Your task to perform on an android device: clear history in the chrome app Image 0: 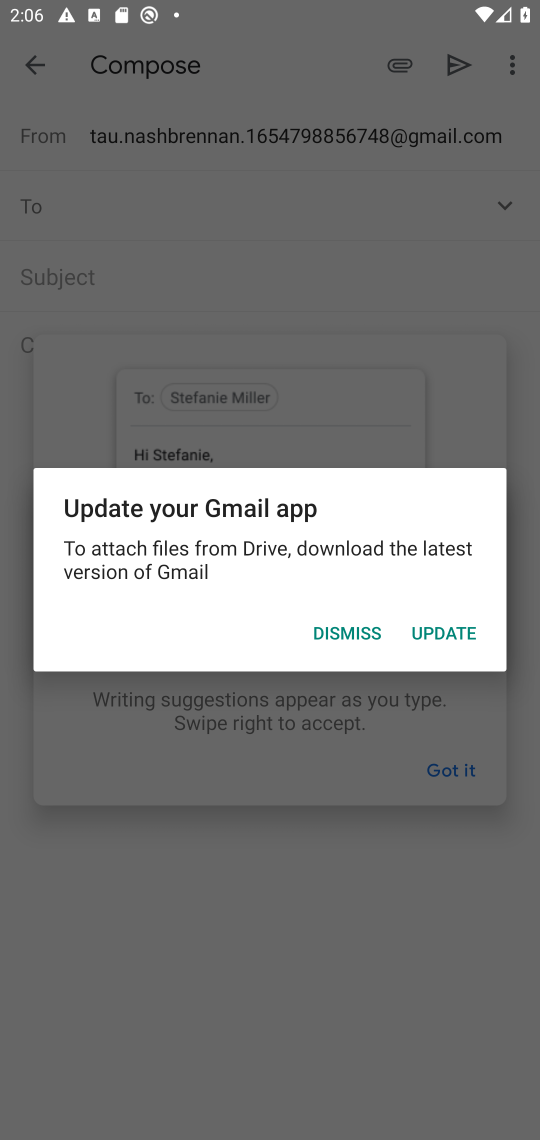
Step 0: press home button
Your task to perform on an android device: clear history in the chrome app Image 1: 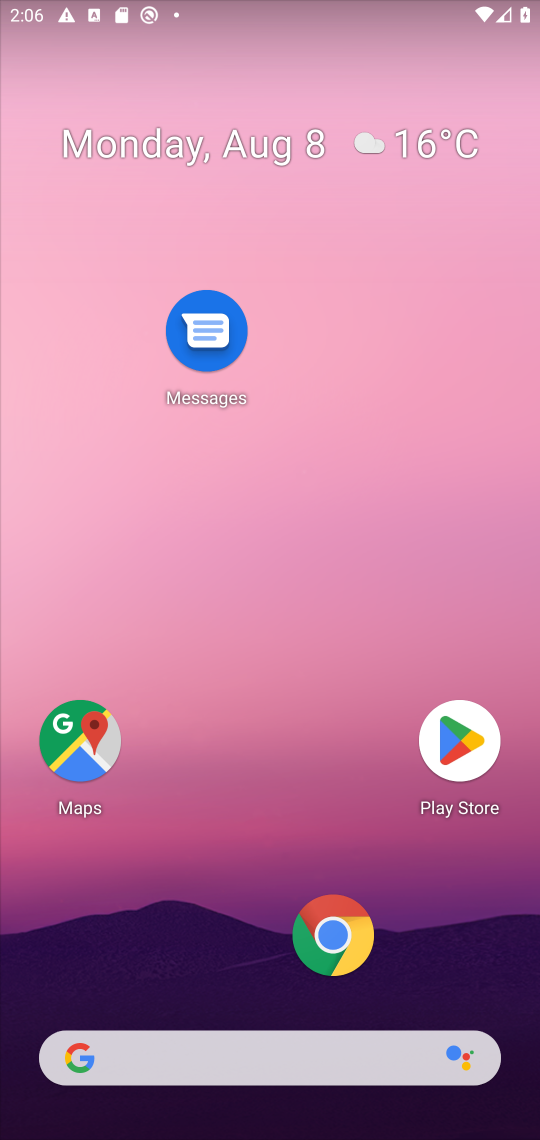
Step 1: drag from (273, 1064) to (312, 223)
Your task to perform on an android device: clear history in the chrome app Image 2: 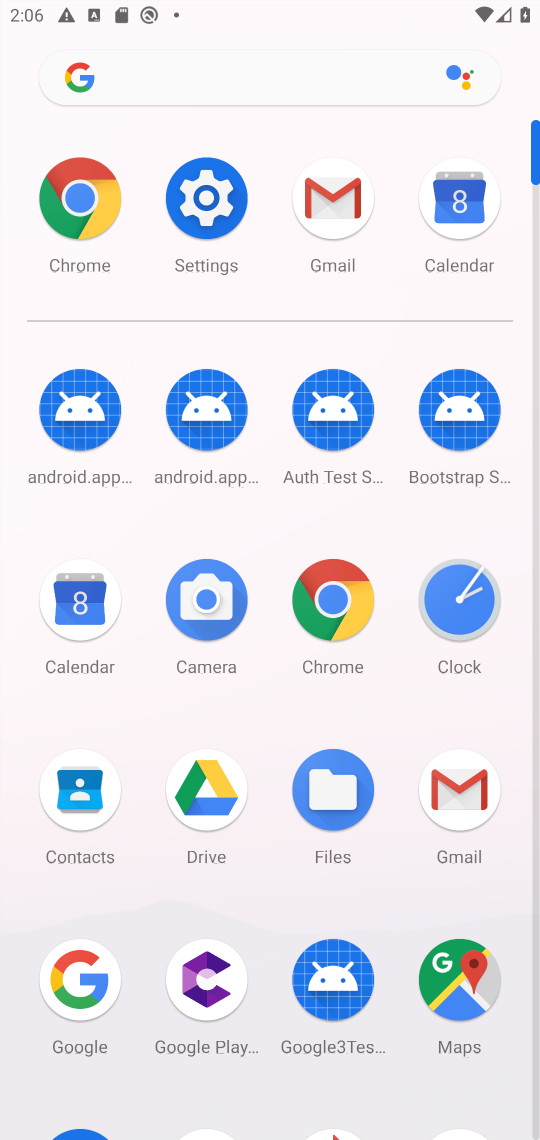
Step 2: click (307, 609)
Your task to perform on an android device: clear history in the chrome app Image 3: 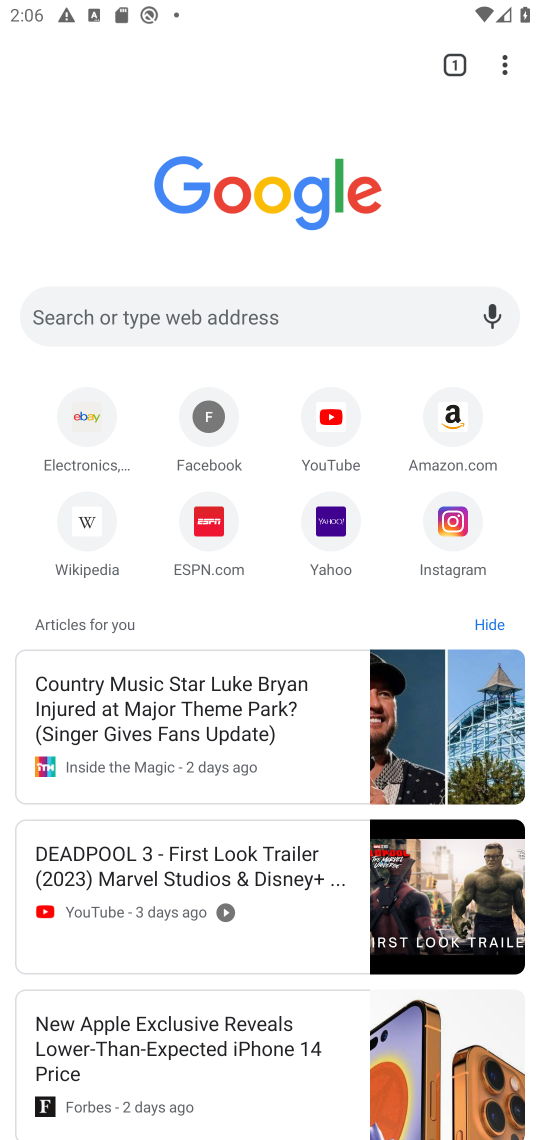
Step 3: click (502, 59)
Your task to perform on an android device: clear history in the chrome app Image 4: 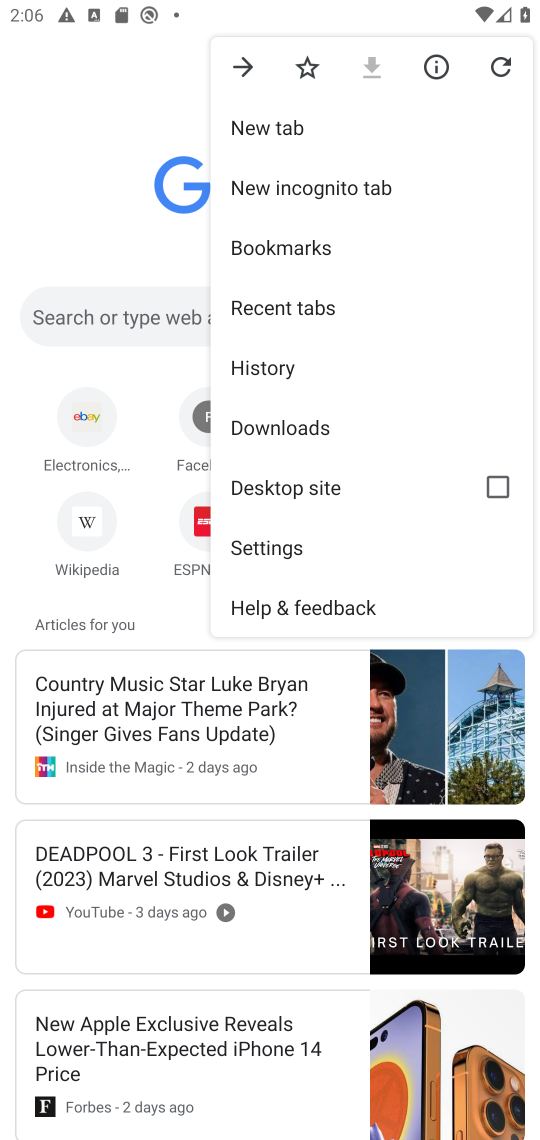
Step 4: click (259, 357)
Your task to perform on an android device: clear history in the chrome app Image 5: 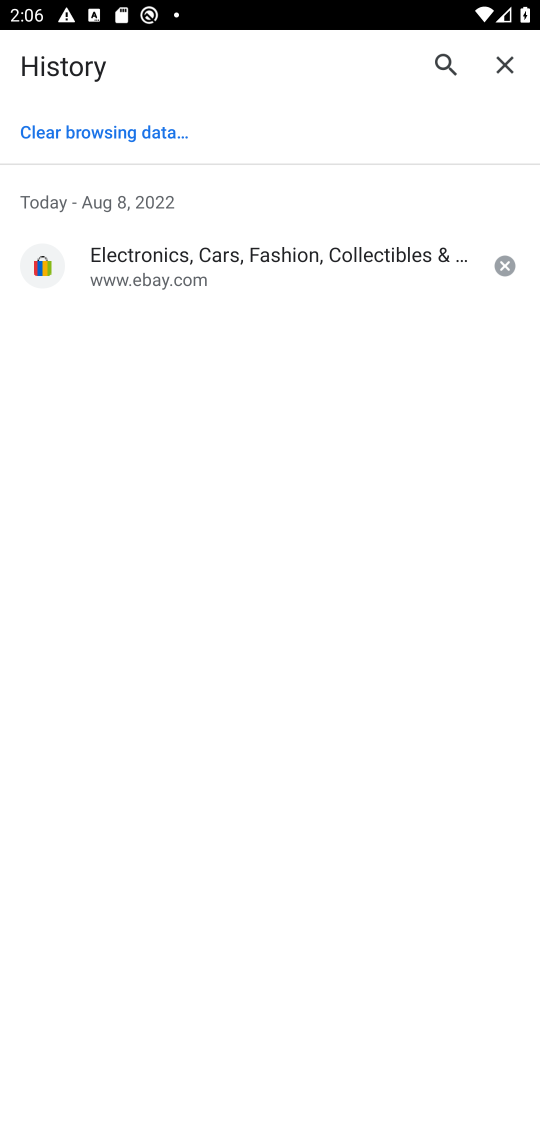
Step 5: click (120, 124)
Your task to perform on an android device: clear history in the chrome app Image 6: 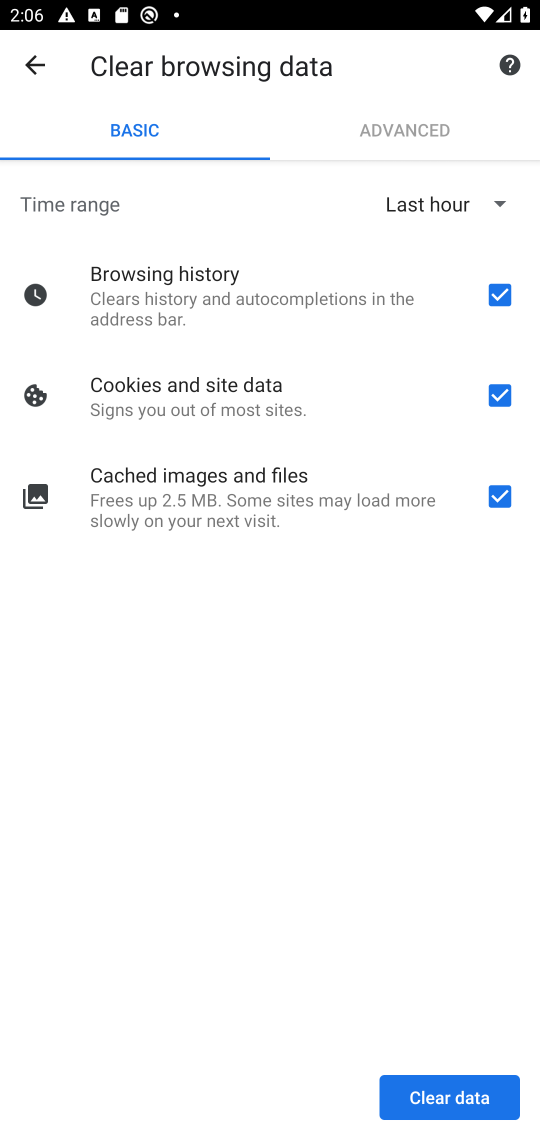
Step 6: click (468, 1105)
Your task to perform on an android device: clear history in the chrome app Image 7: 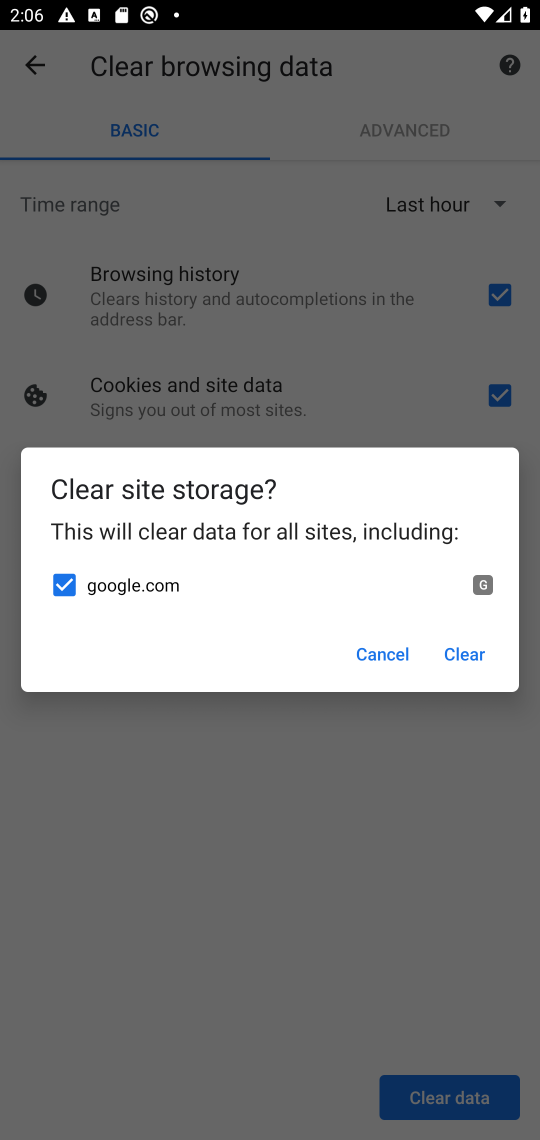
Step 7: click (471, 648)
Your task to perform on an android device: clear history in the chrome app Image 8: 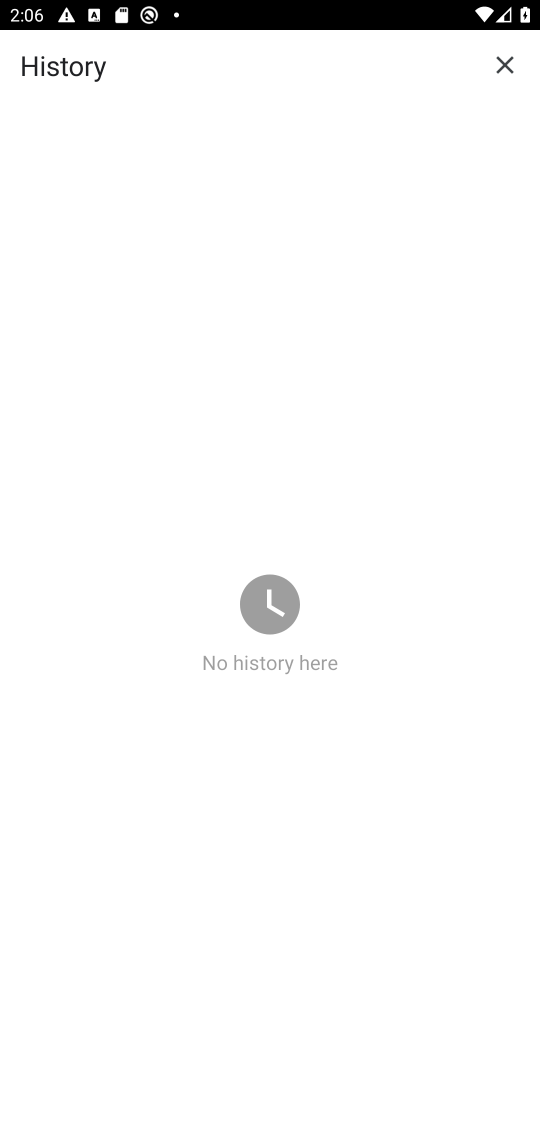
Step 8: task complete